Your task to perform on an android device: Show me popular videos on Youtube Image 0: 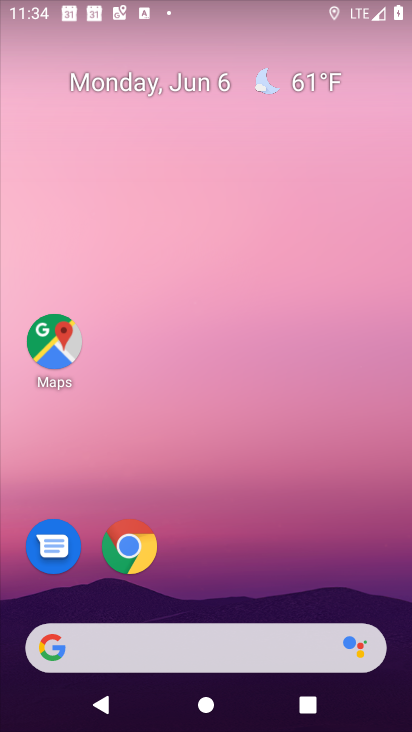
Step 0: drag from (379, 598) to (355, 112)
Your task to perform on an android device: Show me popular videos on Youtube Image 1: 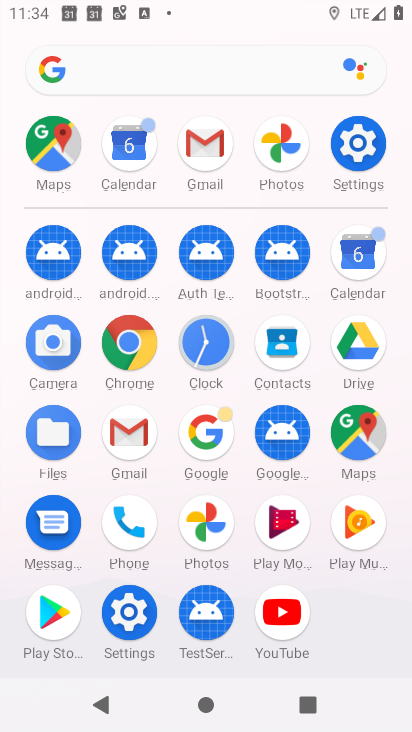
Step 1: click (284, 612)
Your task to perform on an android device: Show me popular videos on Youtube Image 2: 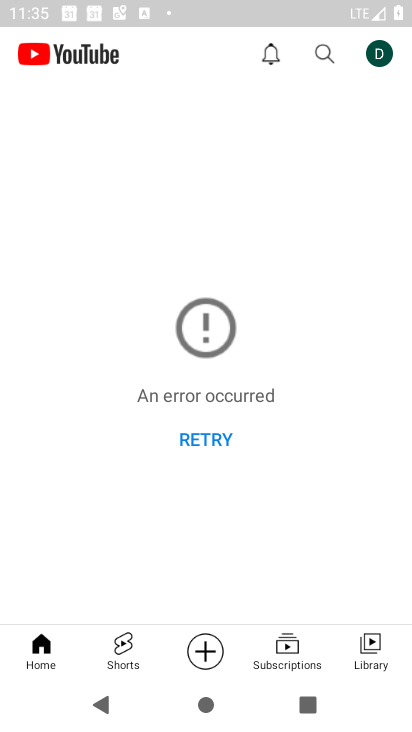
Step 2: click (200, 441)
Your task to perform on an android device: Show me popular videos on Youtube Image 3: 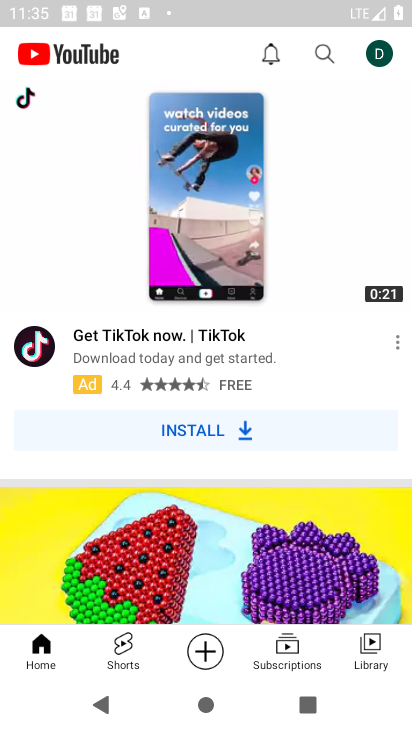
Step 3: drag from (179, 280) to (170, 574)
Your task to perform on an android device: Show me popular videos on Youtube Image 4: 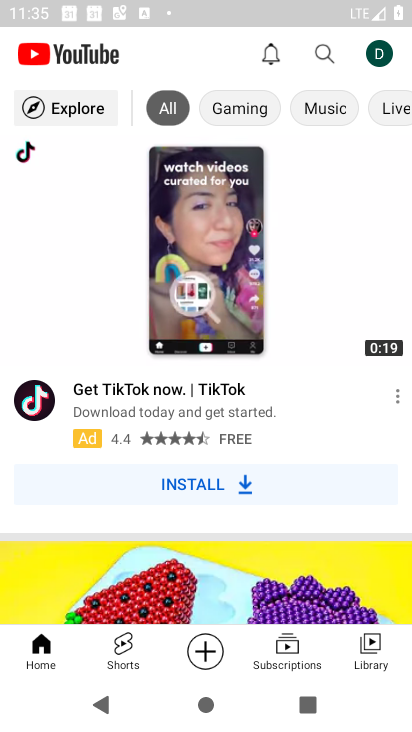
Step 4: click (56, 110)
Your task to perform on an android device: Show me popular videos on Youtube Image 5: 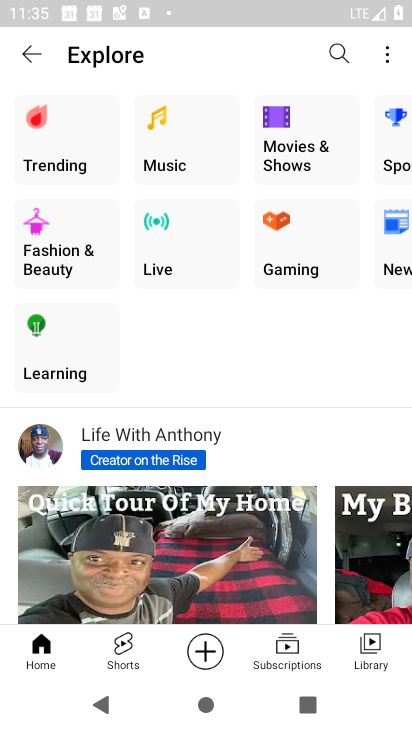
Step 5: click (58, 154)
Your task to perform on an android device: Show me popular videos on Youtube Image 6: 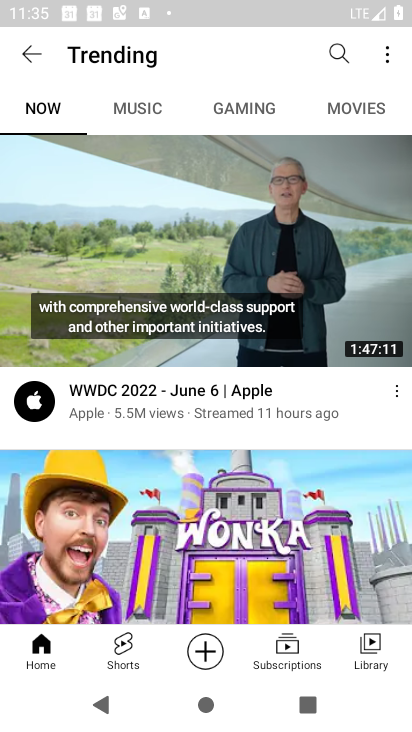
Step 6: task complete